Your task to perform on an android device: Open calendar and show me the third week of next month Image 0: 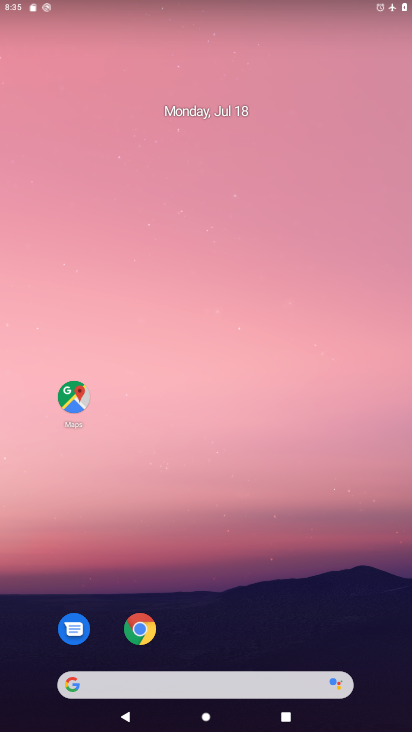
Step 0: drag from (196, 637) to (117, 0)
Your task to perform on an android device: Open calendar and show me the third week of next month Image 1: 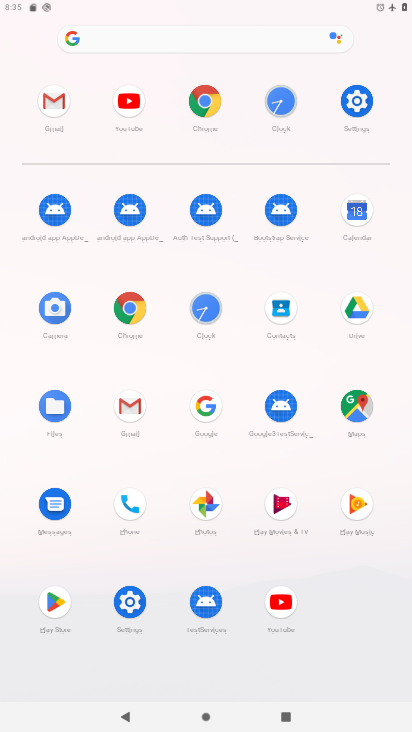
Step 1: click (356, 220)
Your task to perform on an android device: Open calendar and show me the third week of next month Image 2: 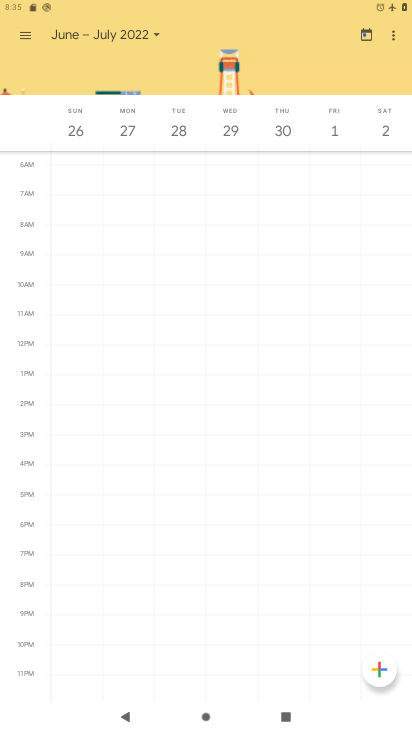
Step 2: click (24, 27)
Your task to perform on an android device: Open calendar and show me the third week of next month Image 3: 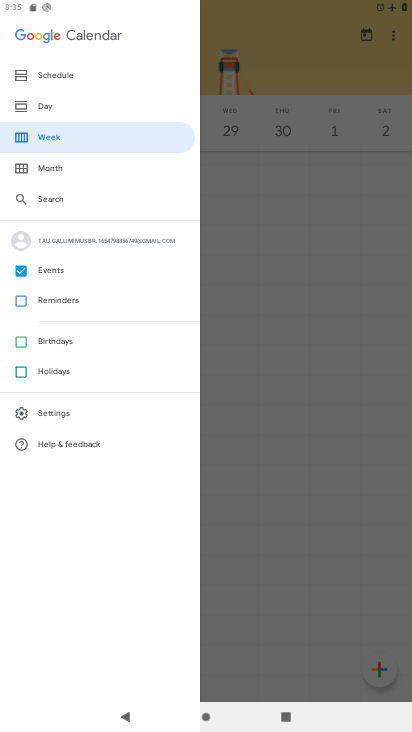
Step 3: click (106, 134)
Your task to perform on an android device: Open calendar and show me the third week of next month Image 4: 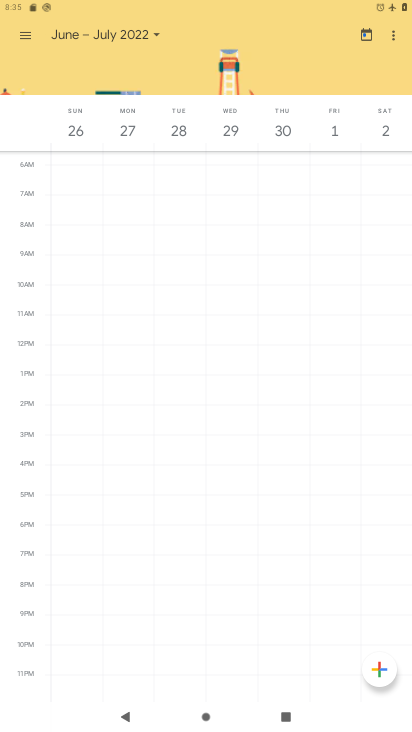
Step 4: click (127, 36)
Your task to perform on an android device: Open calendar and show me the third week of next month Image 5: 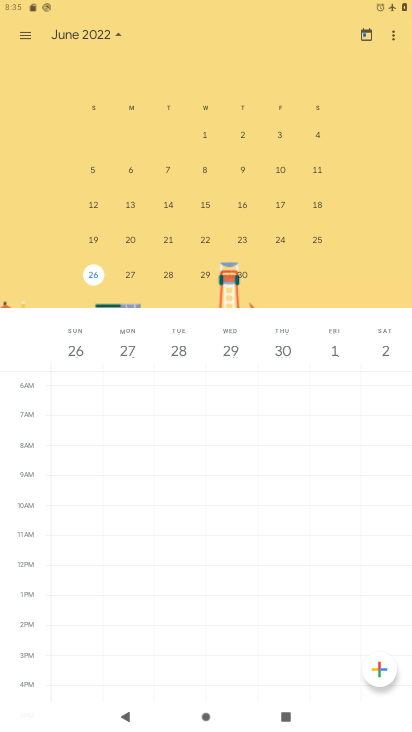
Step 5: drag from (280, 207) to (72, 196)
Your task to perform on an android device: Open calendar and show me the third week of next month Image 6: 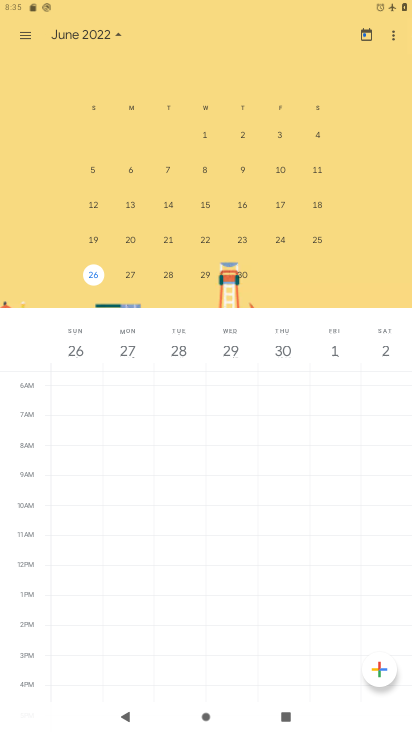
Step 6: click (244, 205)
Your task to perform on an android device: Open calendar and show me the third week of next month Image 7: 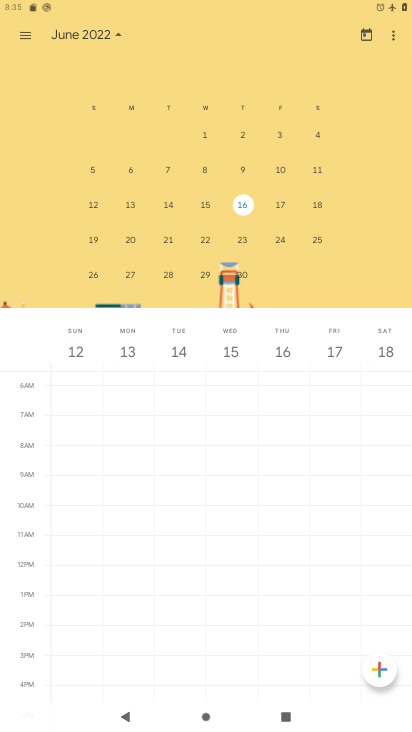
Step 7: task complete